Your task to perform on an android device: delete a single message in the gmail app Image 0: 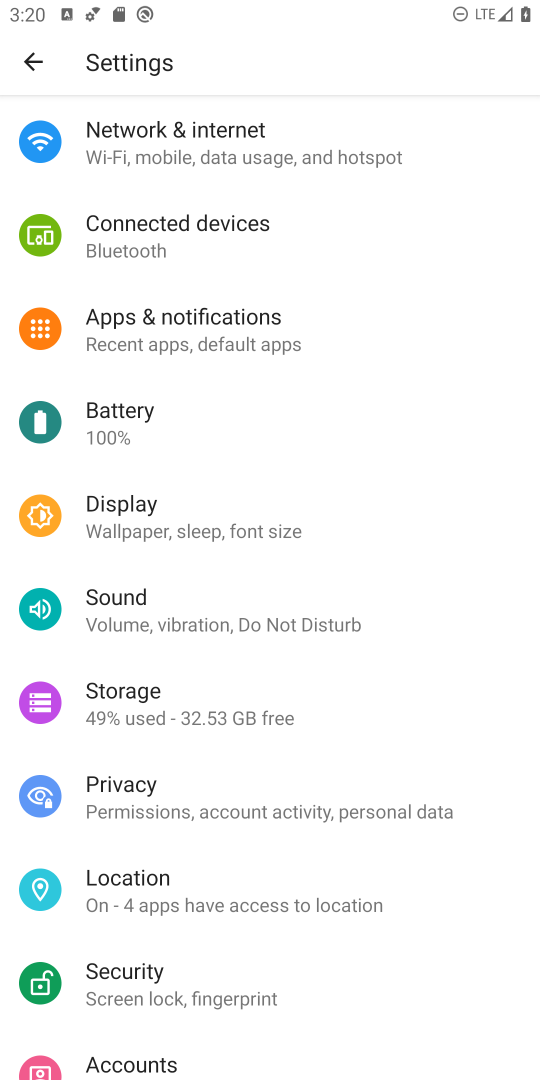
Step 0: press home button
Your task to perform on an android device: delete a single message in the gmail app Image 1: 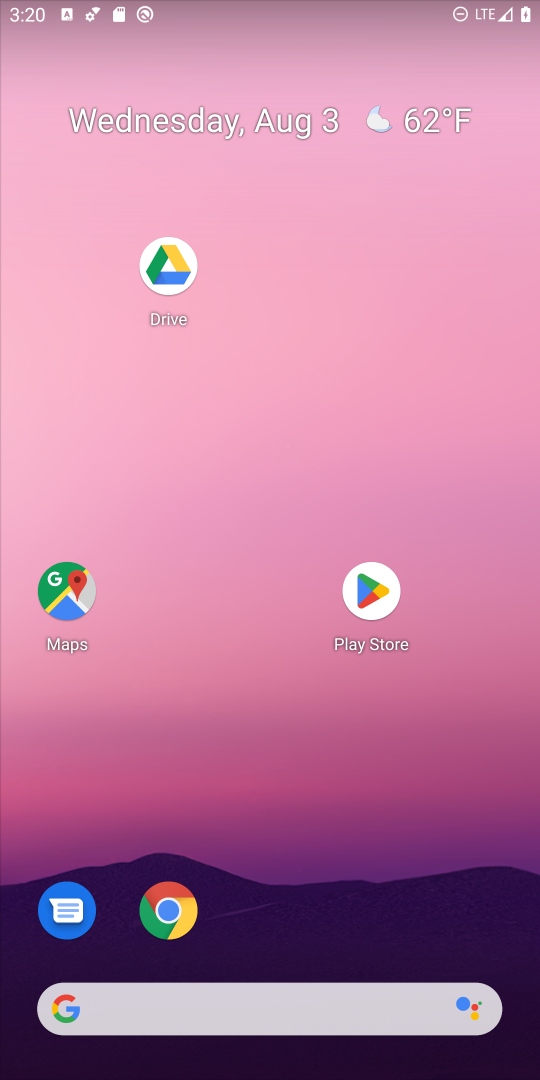
Step 1: drag from (355, 1013) to (299, 82)
Your task to perform on an android device: delete a single message in the gmail app Image 2: 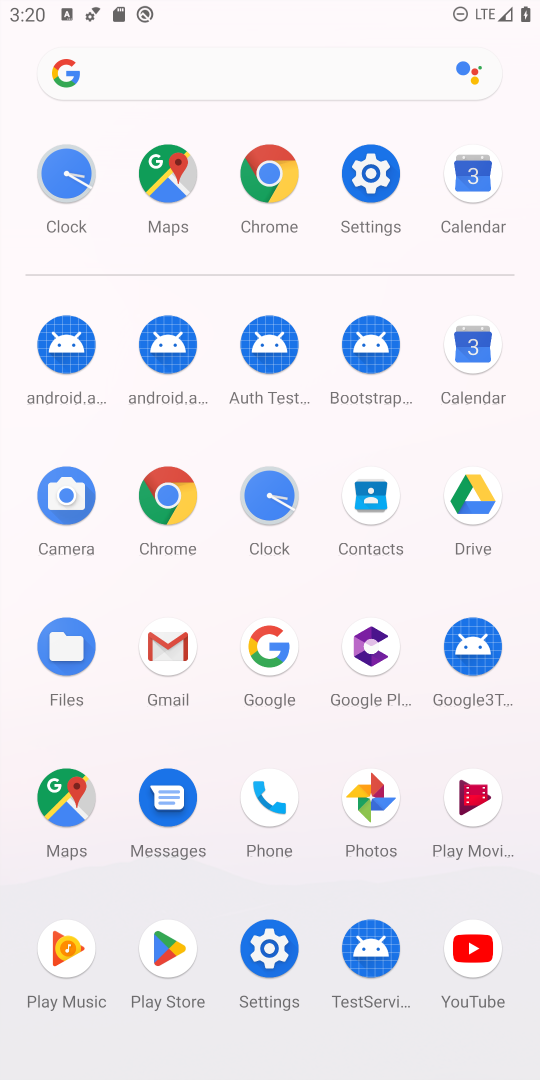
Step 2: click (157, 644)
Your task to perform on an android device: delete a single message in the gmail app Image 3: 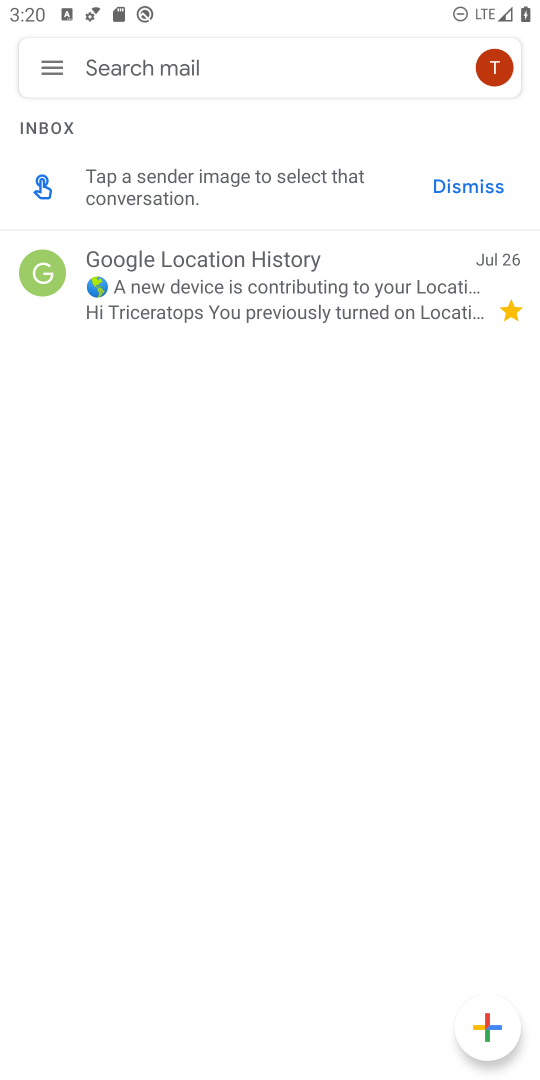
Step 3: click (403, 302)
Your task to perform on an android device: delete a single message in the gmail app Image 4: 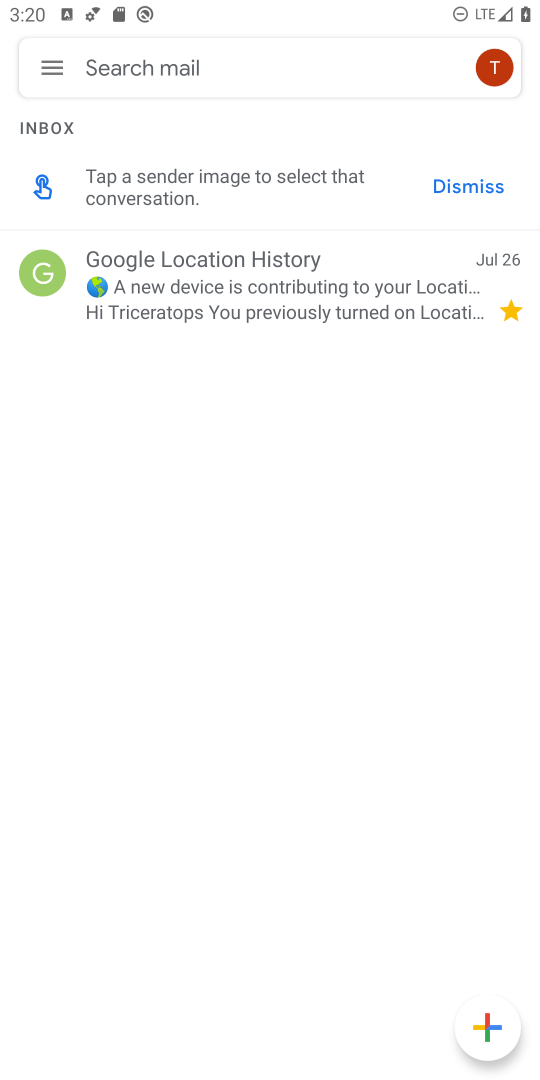
Step 4: click (360, 305)
Your task to perform on an android device: delete a single message in the gmail app Image 5: 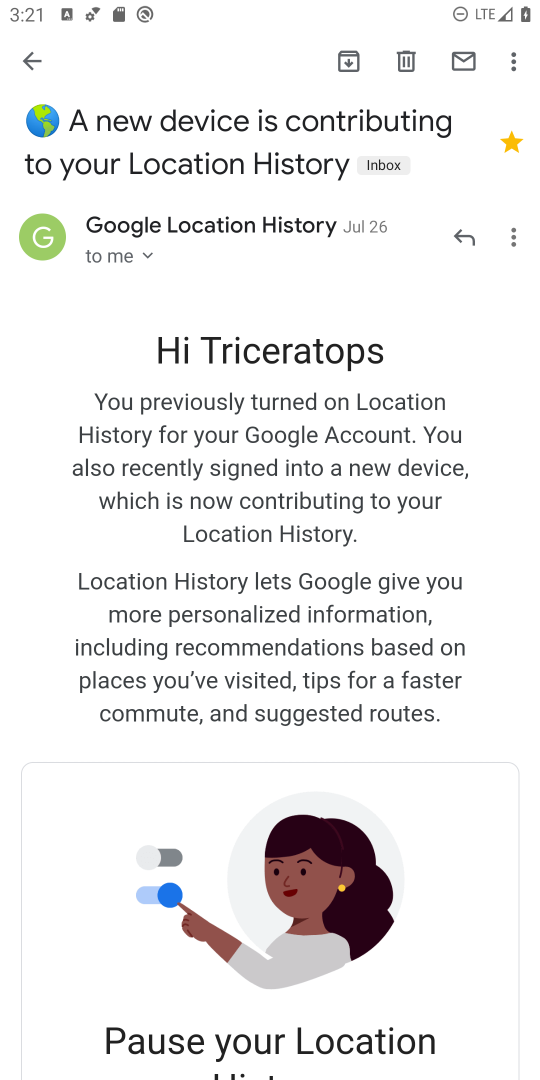
Step 5: click (406, 57)
Your task to perform on an android device: delete a single message in the gmail app Image 6: 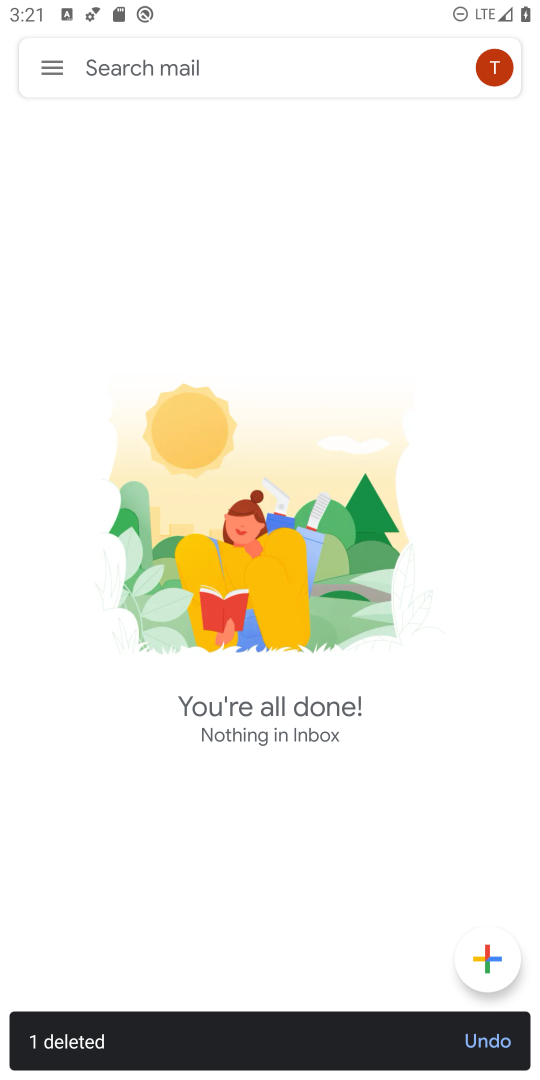
Step 6: task complete